Your task to perform on an android device: find photos in the google photos app Image 0: 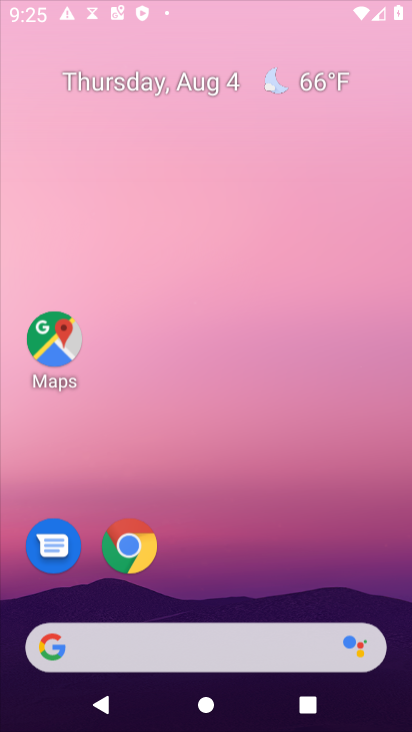
Step 0: press home button
Your task to perform on an android device: find photos in the google photos app Image 1: 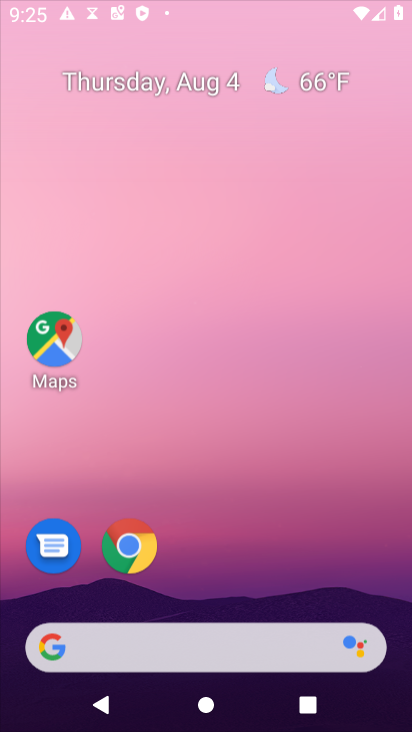
Step 1: click (57, 341)
Your task to perform on an android device: find photos in the google photos app Image 2: 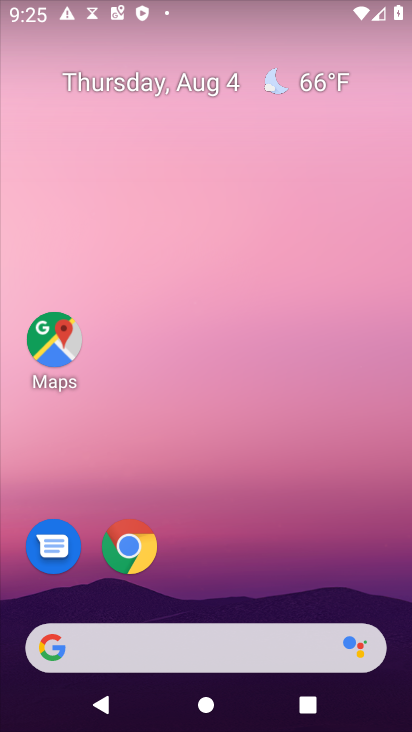
Step 2: drag from (278, 537) to (252, 79)
Your task to perform on an android device: find photos in the google photos app Image 3: 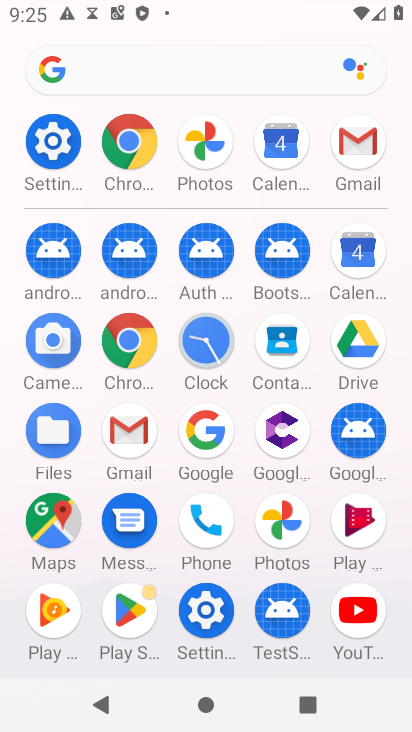
Step 3: click (287, 525)
Your task to perform on an android device: find photos in the google photos app Image 4: 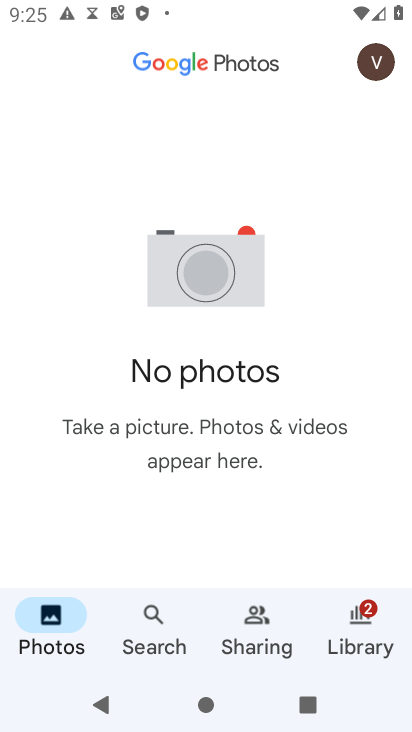
Step 4: click (65, 610)
Your task to perform on an android device: find photos in the google photos app Image 5: 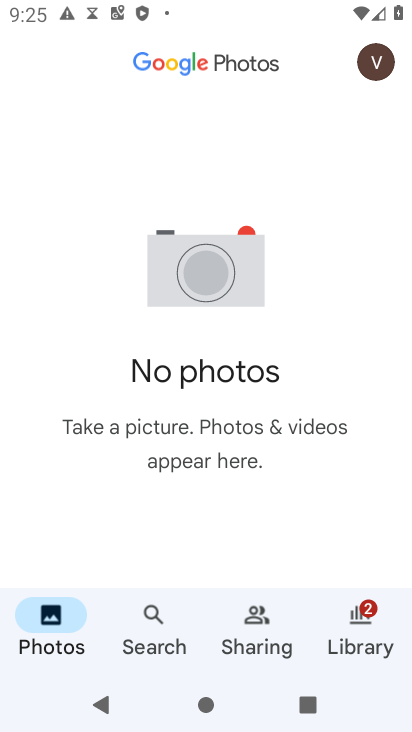
Step 5: task complete